Your task to perform on an android device: Add bose soundlink to the cart on ebay Image 0: 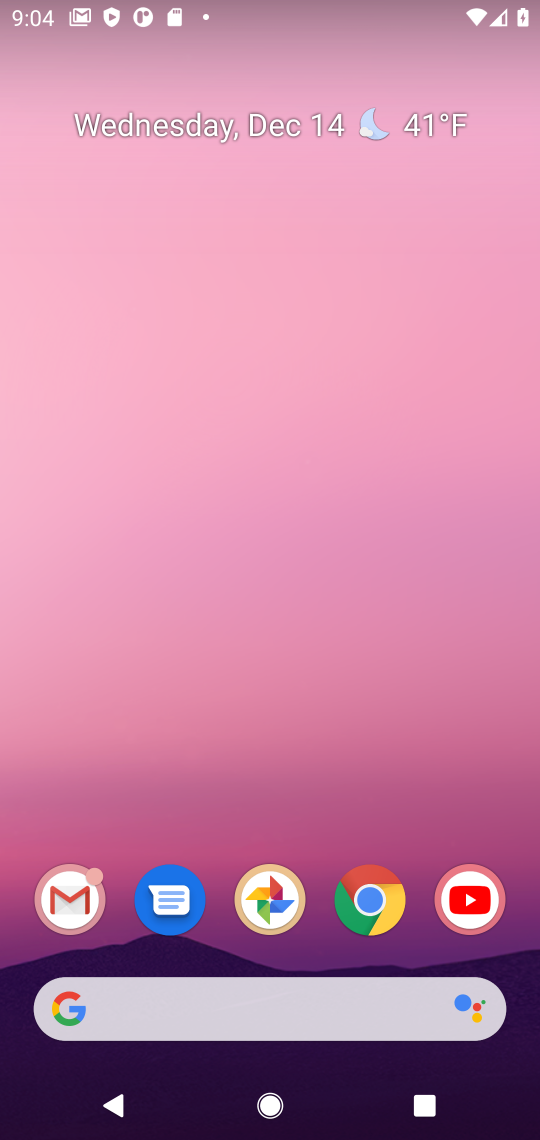
Step 0: click (370, 902)
Your task to perform on an android device: Add bose soundlink to the cart on ebay Image 1: 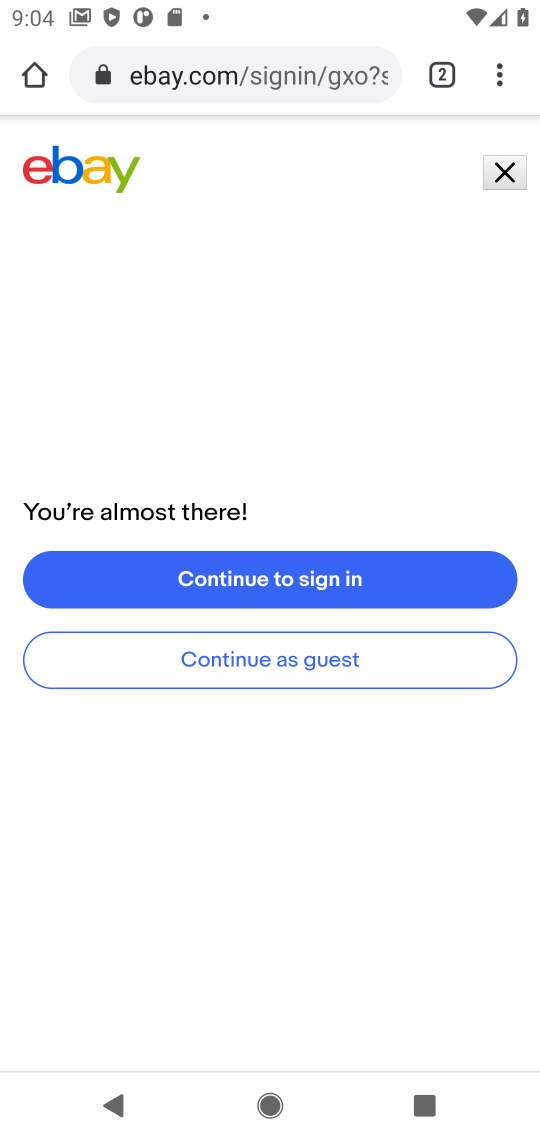
Step 1: click (505, 172)
Your task to perform on an android device: Add bose soundlink to the cart on ebay Image 2: 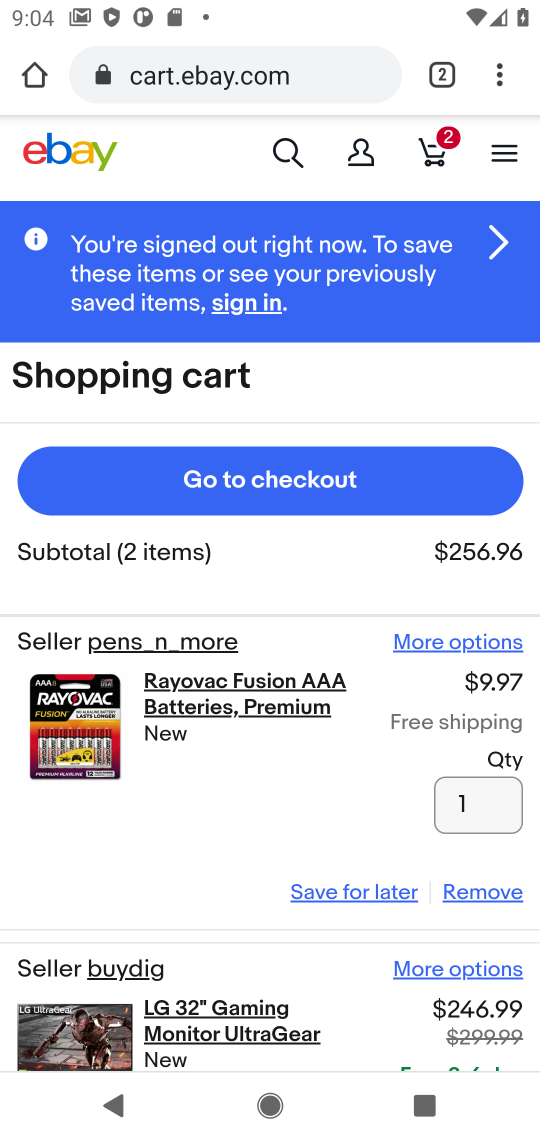
Step 2: click (290, 150)
Your task to perform on an android device: Add bose soundlink to the cart on ebay Image 3: 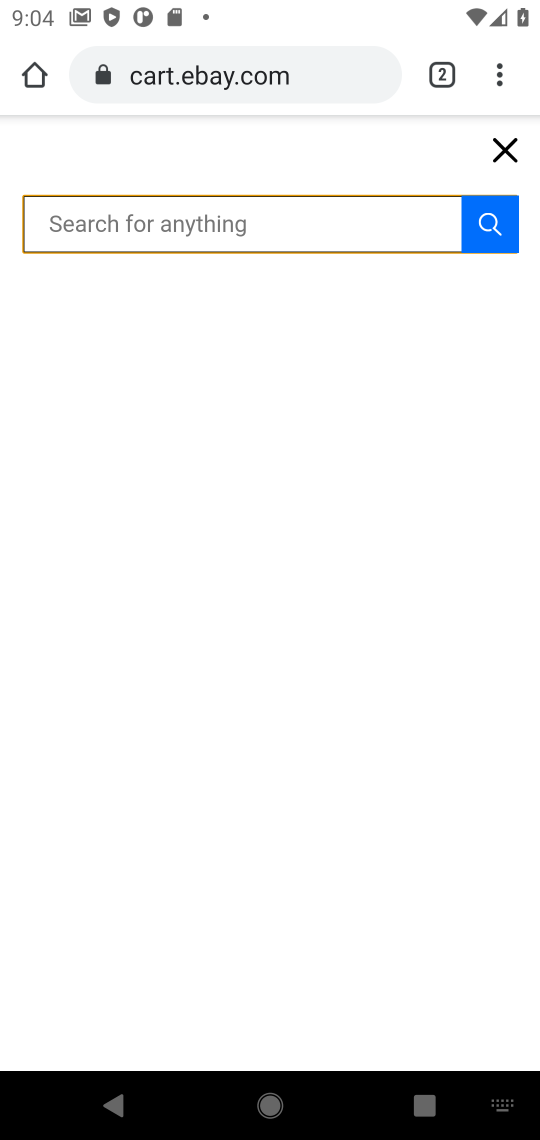
Step 3: type "bose soundlink"
Your task to perform on an android device: Add bose soundlink to the cart on ebay Image 4: 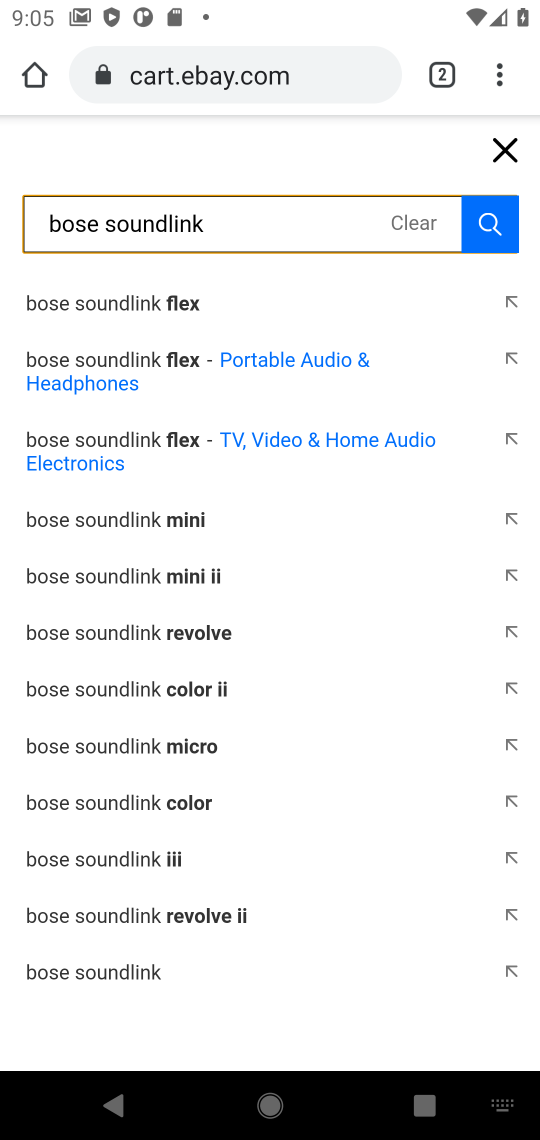
Step 4: click (98, 981)
Your task to perform on an android device: Add bose soundlink to the cart on ebay Image 5: 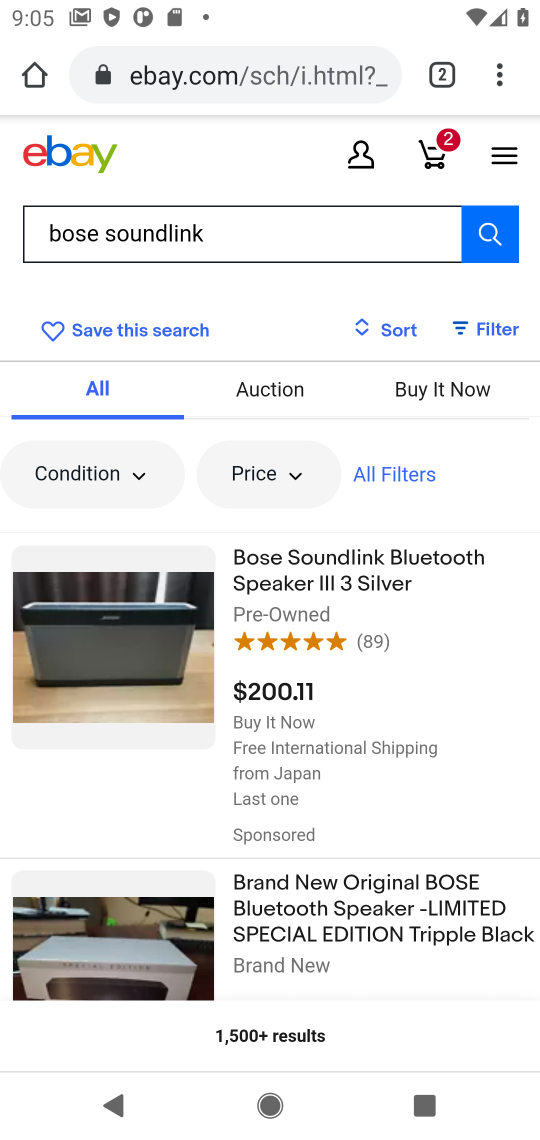
Step 5: click (284, 615)
Your task to perform on an android device: Add bose soundlink to the cart on ebay Image 6: 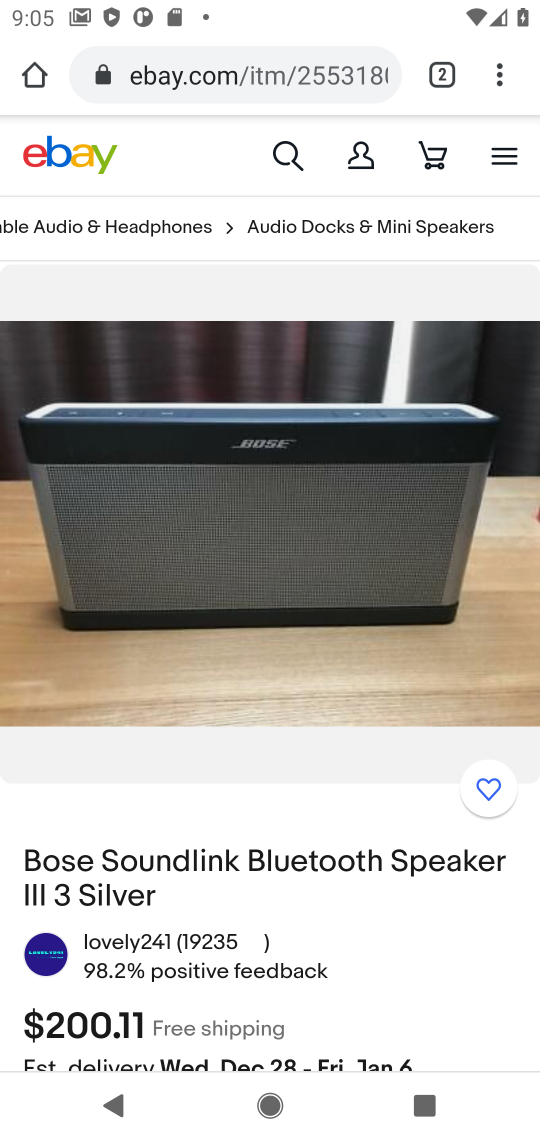
Step 6: drag from (267, 781) to (291, 189)
Your task to perform on an android device: Add bose soundlink to the cart on ebay Image 7: 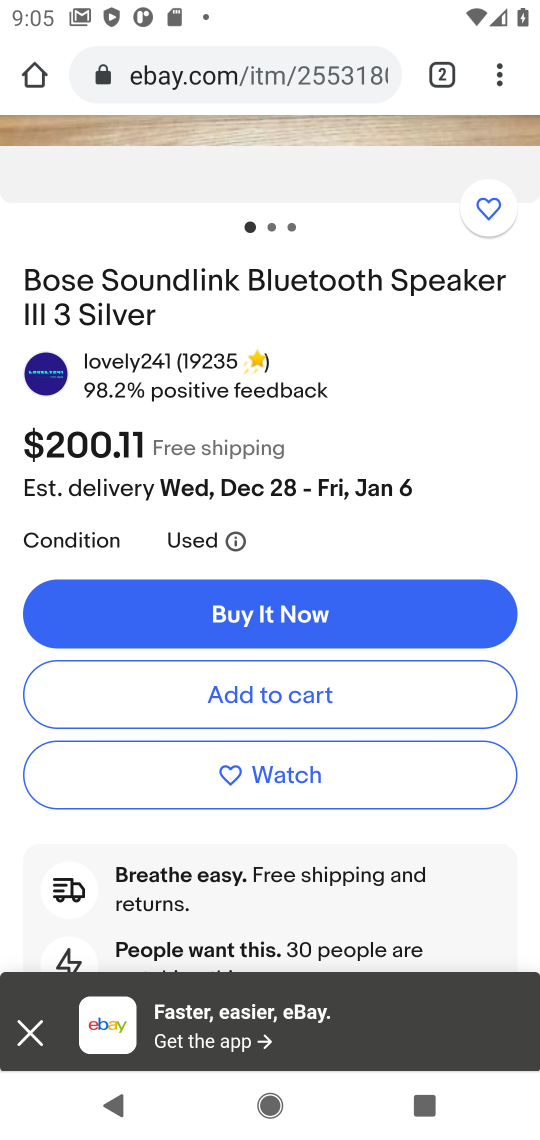
Step 7: click (240, 699)
Your task to perform on an android device: Add bose soundlink to the cart on ebay Image 8: 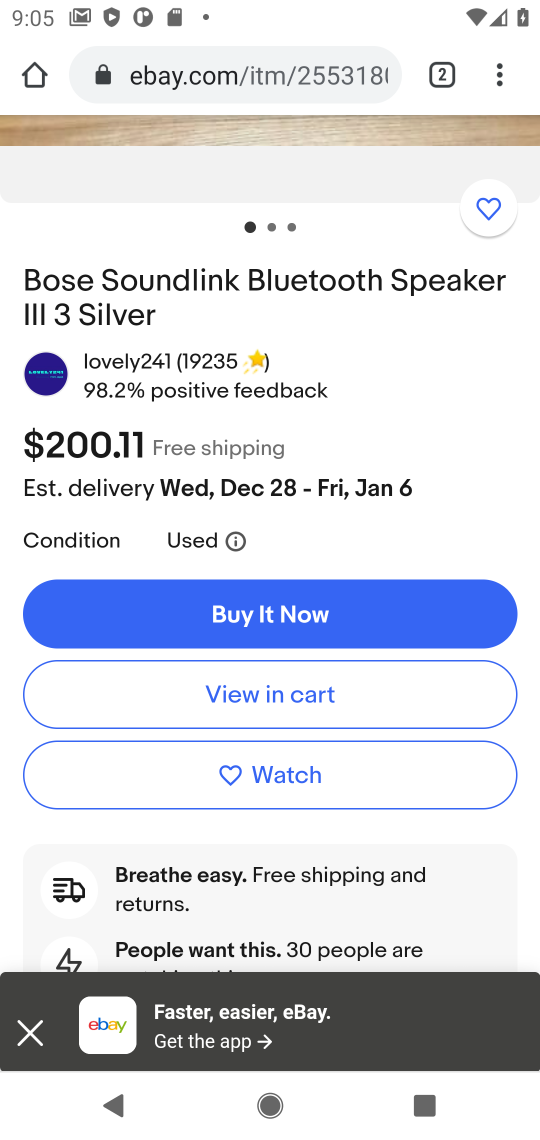
Step 8: task complete